Your task to perform on an android device: open the mobile data screen to see how much data has been used Image 0: 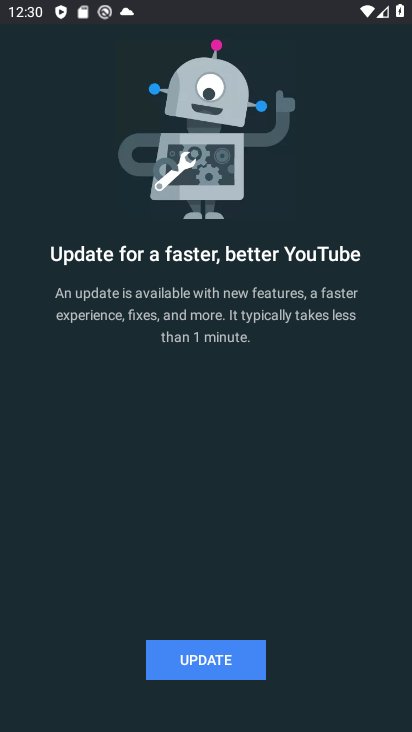
Step 0: click (116, 205)
Your task to perform on an android device: open the mobile data screen to see how much data has been used Image 1: 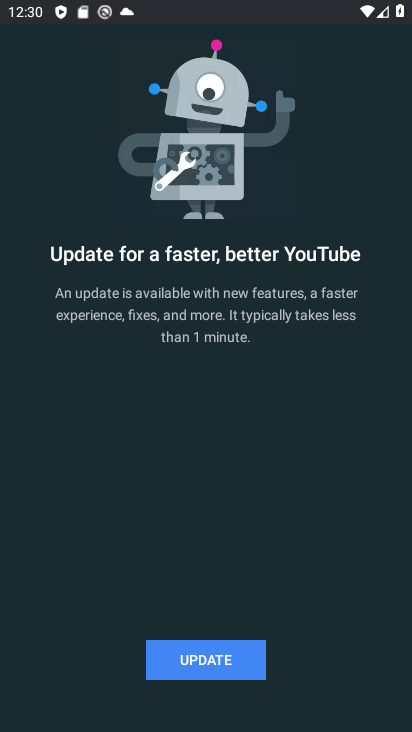
Step 1: press home button
Your task to perform on an android device: open the mobile data screen to see how much data has been used Image 2: 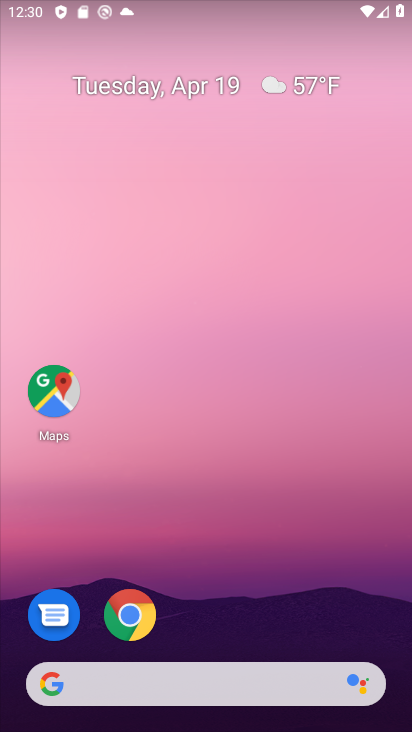
Step 2: drag from (226, 580) to (244, 236)
Your task to perform on an android device: open the mobile data screen to see how much data has been used Image 3: 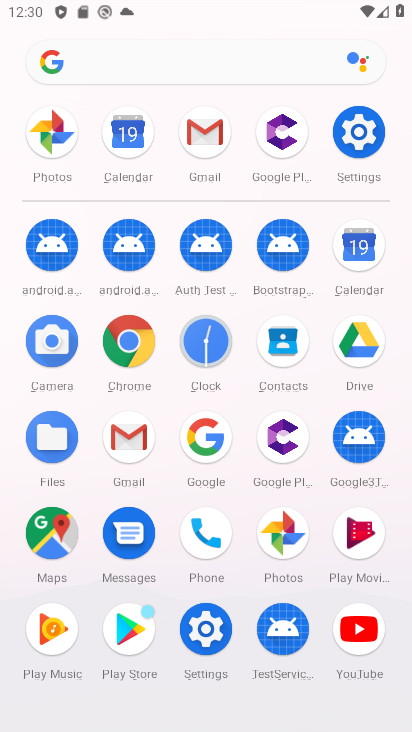
Step 3: click (362, 138)
Your task to perform on an android device: open the mobile data screen to see how much data has been used Image 4: 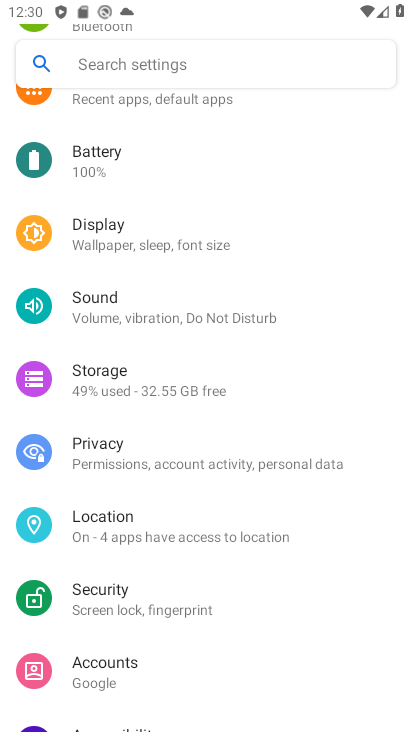
Step 4: drag from (189, 183) to (190, 537)
Your task to perform on an android device: open the mobile data screen to see how much data has been used Image 5: 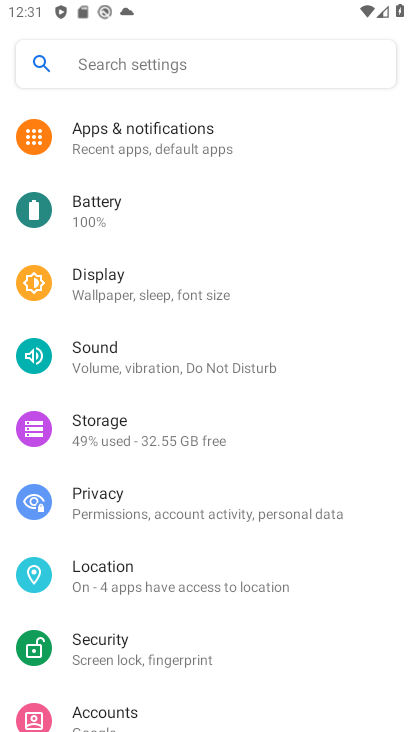
Step 5: drag from (172, 191) to (198, 543)
Your task to perform on an android device: open the mobile data screen to see how much data has been used Image 6: 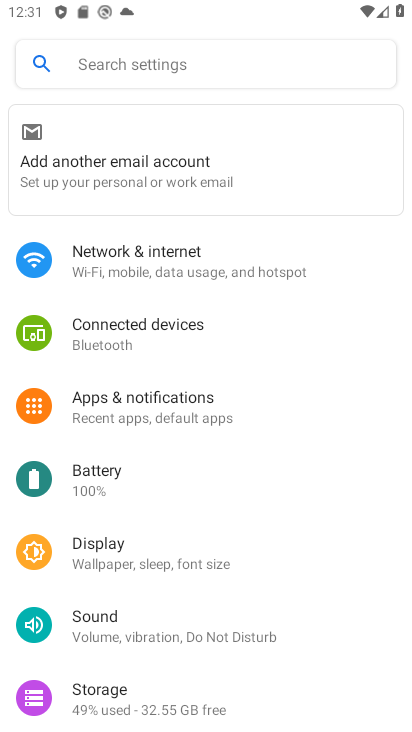
Step 6: click (176, 273)
Your task to perform on an android device: open the mobile data screen to see how much data has been used Image 7: 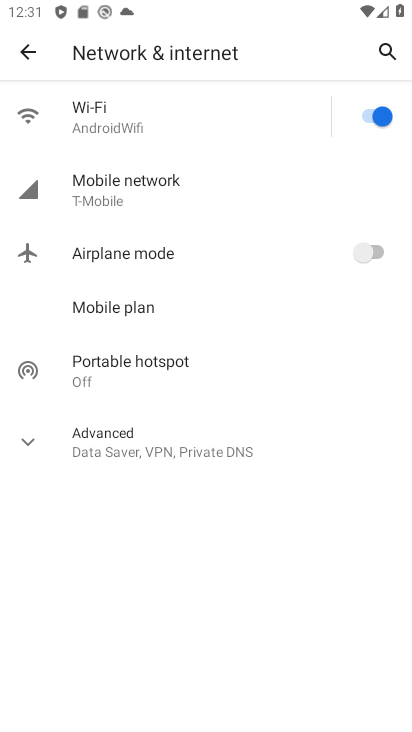
Step 7: click (194, 195)
Your task to perform on an android device: open the mobile data screen to see how much data has been used Image 8: 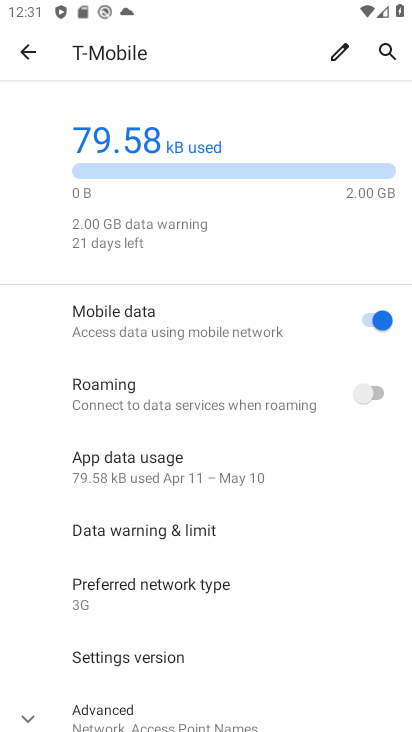
Step 8: click (165, 470)
Your task to perform on an android device: open the mobile data screen to see how much data has been used Image 9: 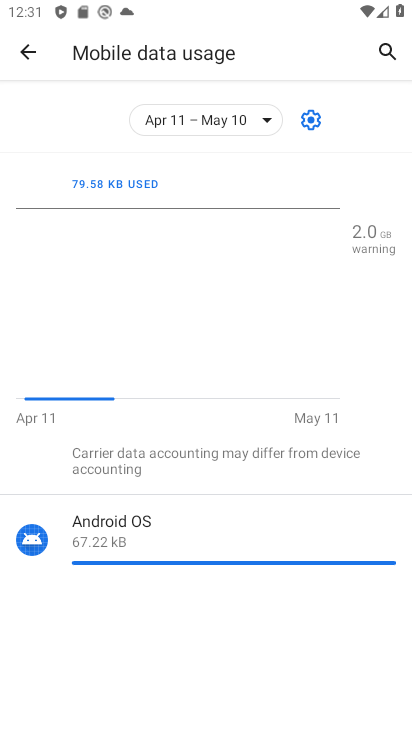
Step 9: task complete